Your task to perform on an android device: What's on my calendar today? Image 0: 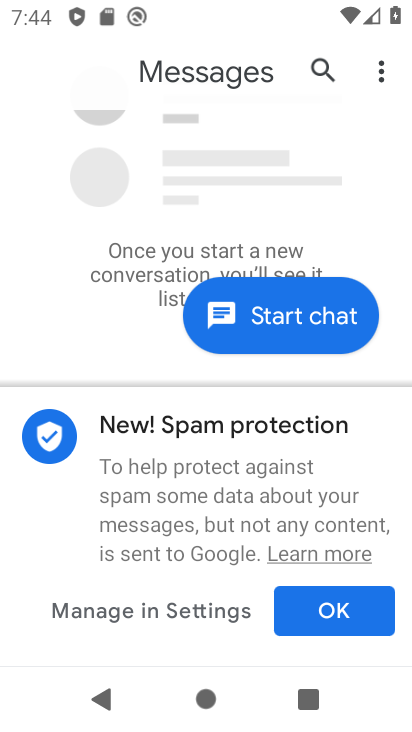
Step 0: press home button
Your task to perform on an android device: What's on my calendar today? Image 1: 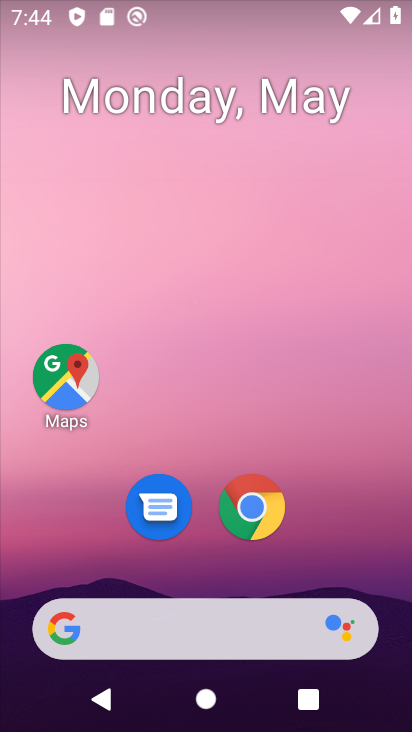
Step 1: drag from (362, 586) to (339, 38)
Your task to perform on an android device: What's on my calendar today? Image 2: 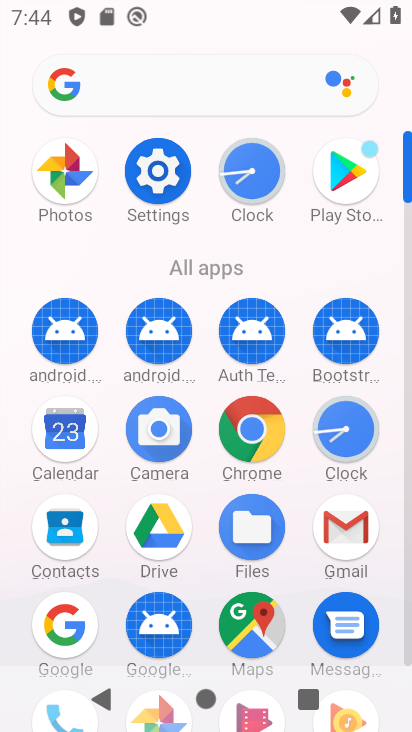
Step 2: click (64, 439)
Your task to perform on an android device: What's on my calendar today? Image 3: 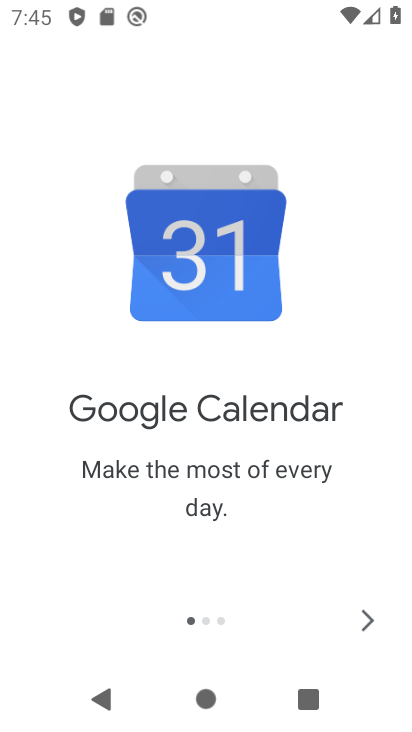
Step 3: click (360, 633)
Your task to perform on an android device: What's on my calendar today? Image 4: 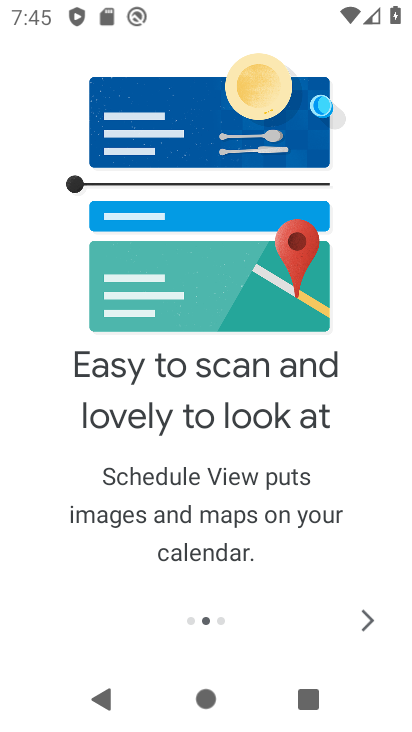
Step 4: click (360, 633)
Your task to perform on an android device: What's on my calendar today? Image 5: 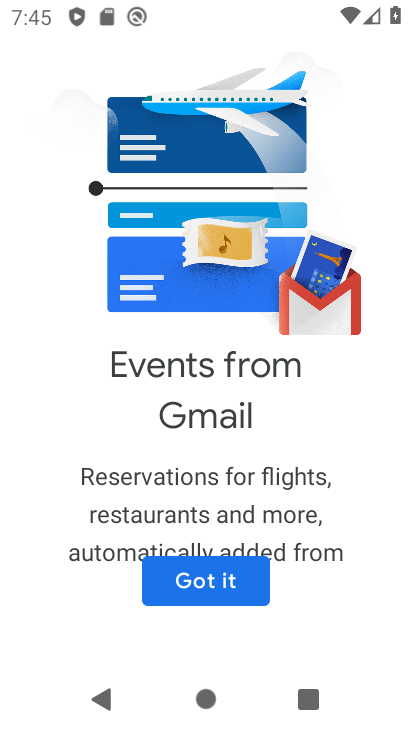
Step 5: click (223, 579)
Your task to perform on an android device: What's on my calendar today? Image 6: 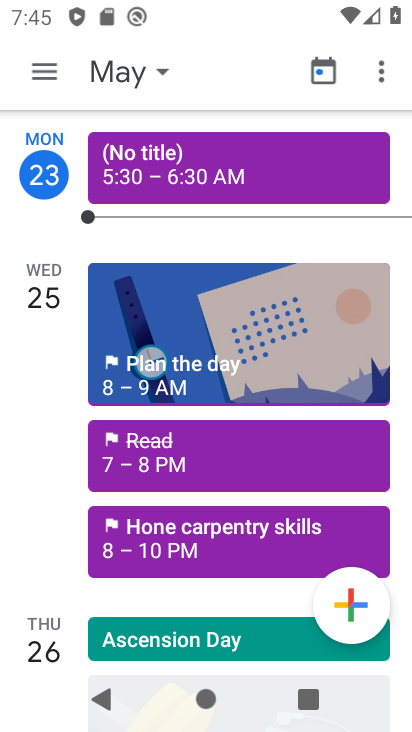
Step 6: click (130, 175)
Your task to perform on an android device: What's on my calendar today? Image 7: 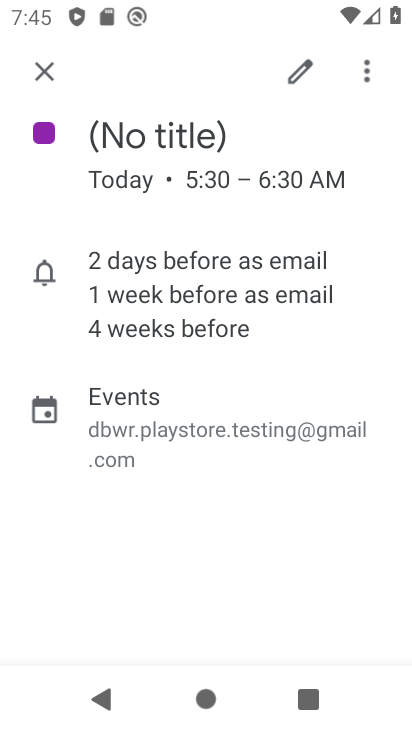
Step 7: task complete